Your task to perform on an android device: change the upload size in google photos Image 0: 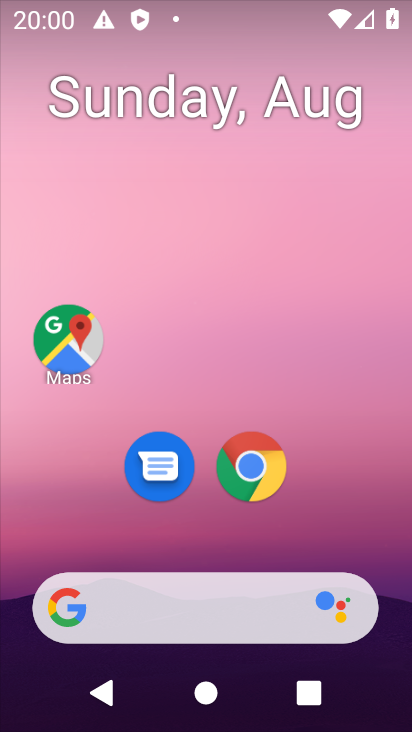
Step 0: drag from (299, 558) to (235, 145)
Your task to perform on an android device: change the upload size in google photos Image 1: 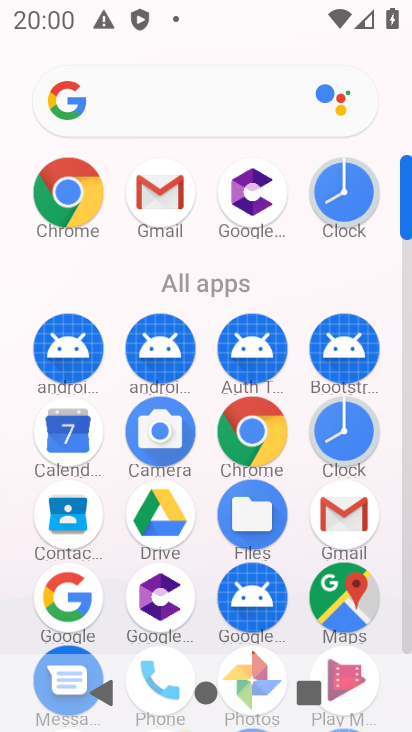
Step 1: click (257, 654)
Your task to perform on an android device: change the upload size in google photos Image 2: 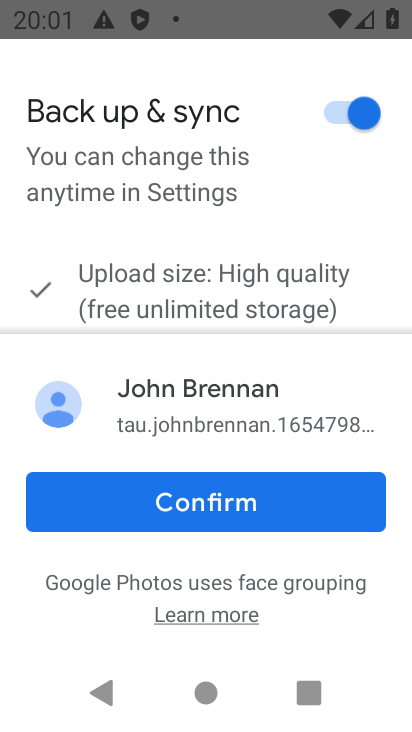
Step 2: click (300, 505)
Your task to perform on an android device: change the upload size in google photos Image 3: 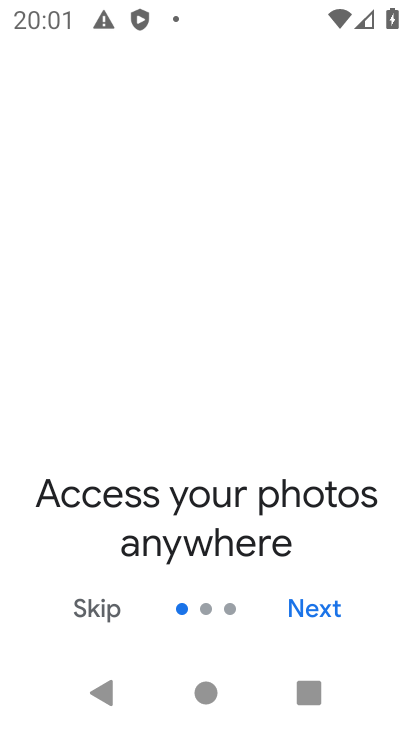
Step 3: click (110, 604)
Your task to perform on an android device: change the upload size in google photos Image 4: 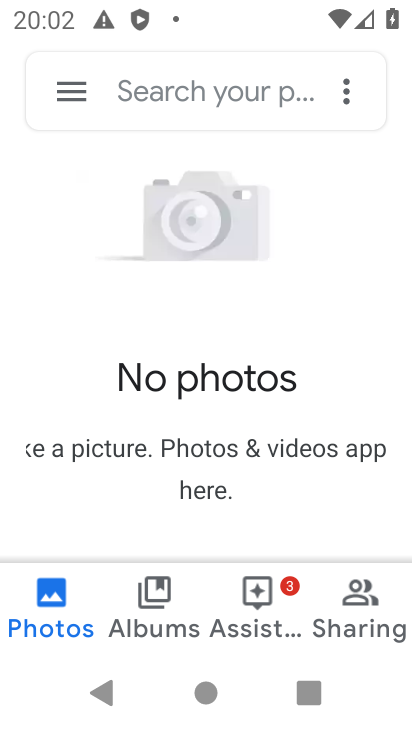
Step 4: click (81, 100)
Your task to perform on an android device: change the upload size in google photos Image 5: 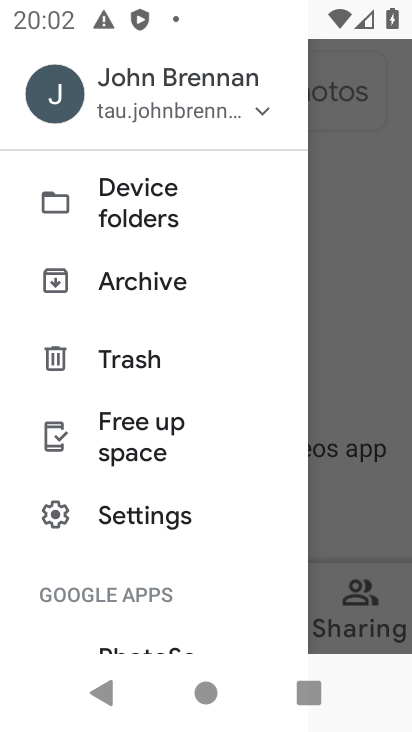
Step 5: drag from (237, 511) to (181, 169)
Your task to perform on an android device: change the upload size in google photos Image 6: 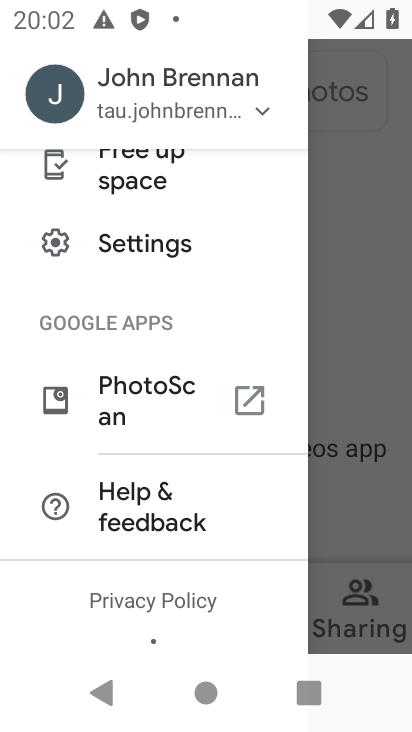
Step 6: click (132, 238)
Your task to perform on an android device: change the upload size in google photos Image 7: 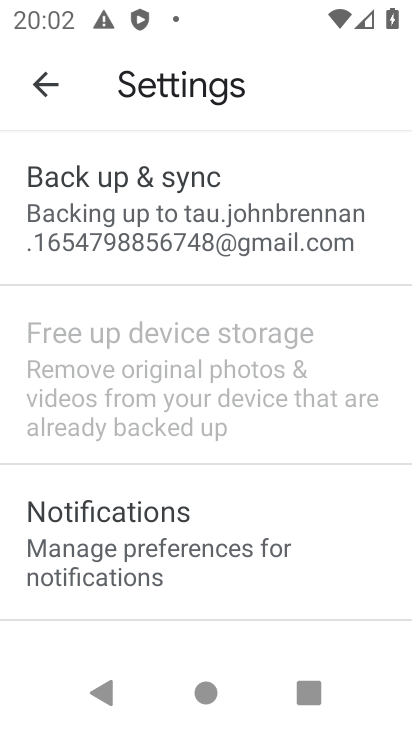
Step 7: click (218, 240)
Your task to perform on an android device: change the upload size in google photos Image 8: 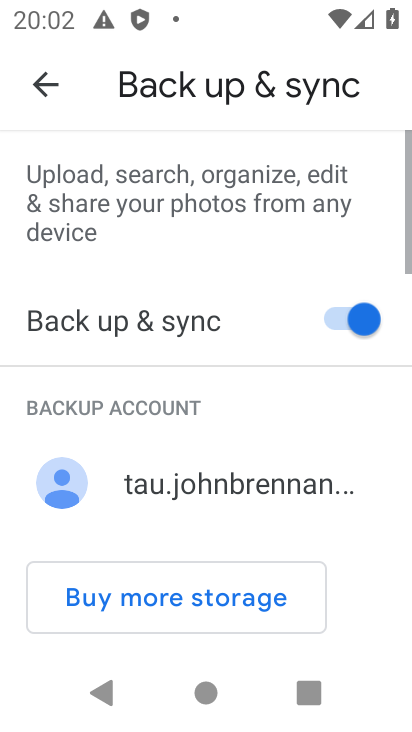
Step 8: drag from (313, 499) to (241, 97)
Your task to perform on an android device: change the upload size in google photos Image 9: 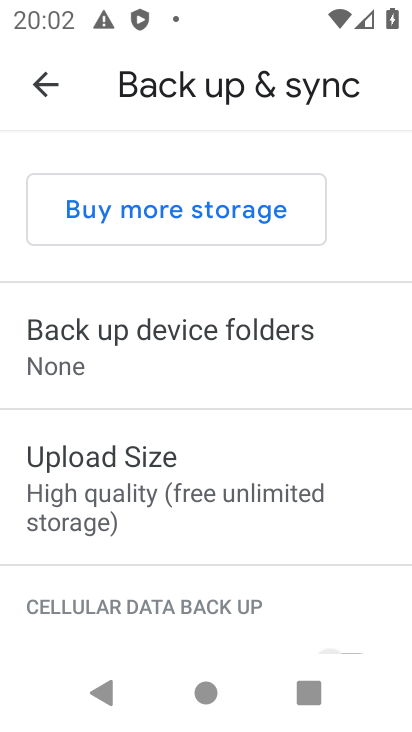
Step 9: click (153, 445)
Your task to perform on an android device: change the upload size in google photos Image 10: 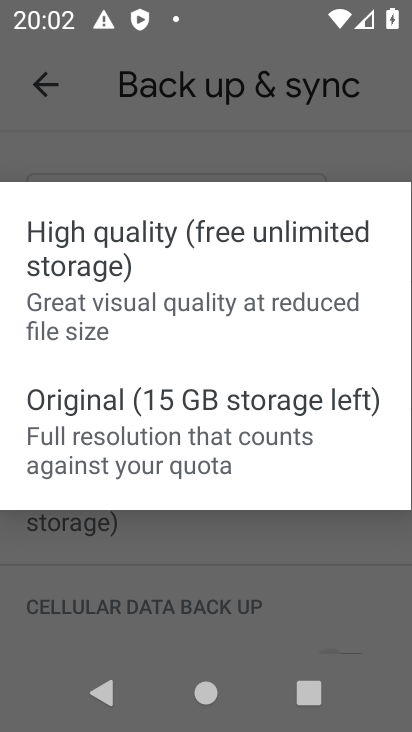
Step 10: click (189, 427)
Your task to perform on an android device: change the upload size in google photos Image 11: 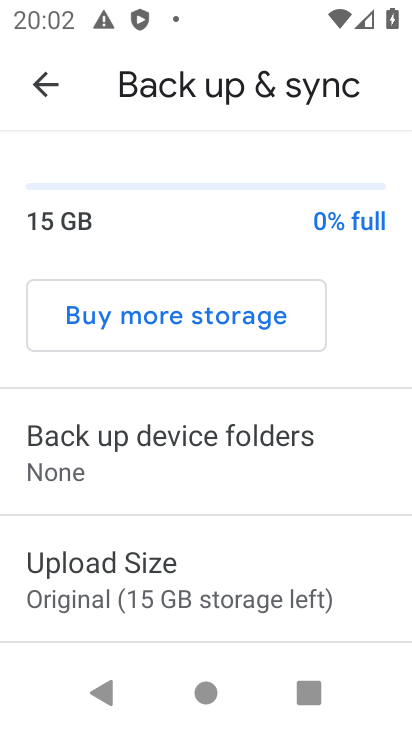
Step 11: task complete